Your task to perform on an android device: Open the web browser Image 0: 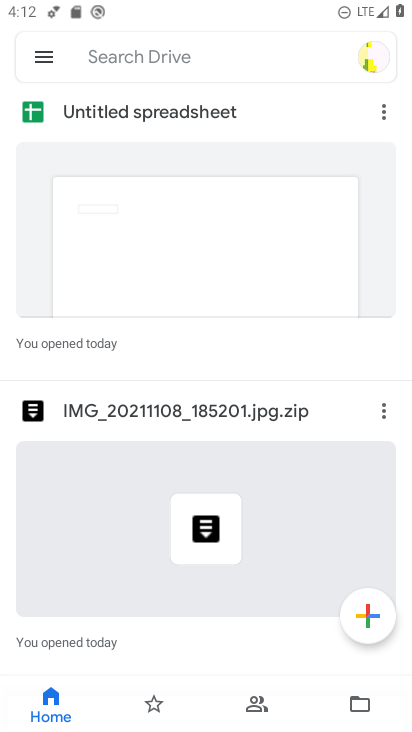
Step 0: press back button
Your task to perform on an android device: Open the web browser Image 1: 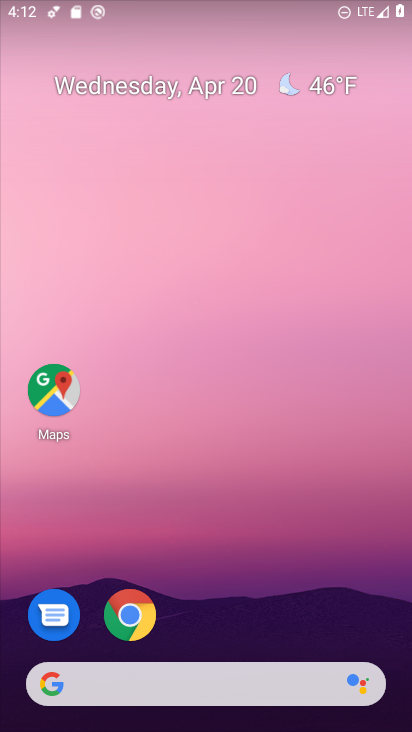
Step 1: click (133, 623)
Your task to perform on an android device: Open the web browser Image 2: 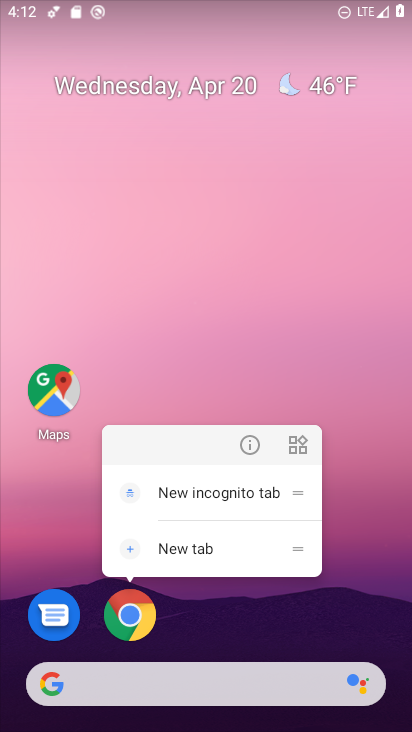
Step 2: click (123, 617)
Your task to perform on an android device: Open the web browser Image 3: 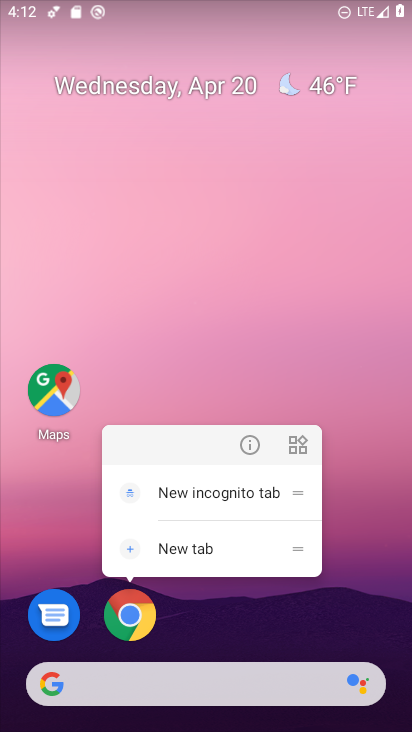
Step 3: click (131, 613)
Your task to perform on an android device: Open the web browser Image 4: 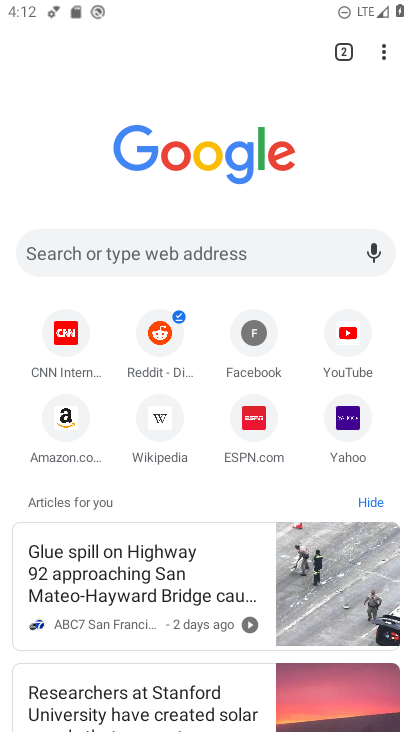
Step 4: task complete